Your task to perform on an android device: Go to battery settings Image 0: 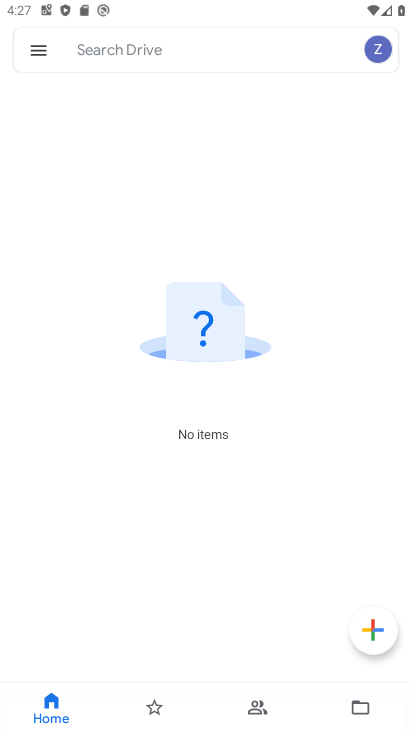
Step 0: drag from (216, 3) to (243, 602)
Your task to perform on an android device: Go to battery settings Image 1: 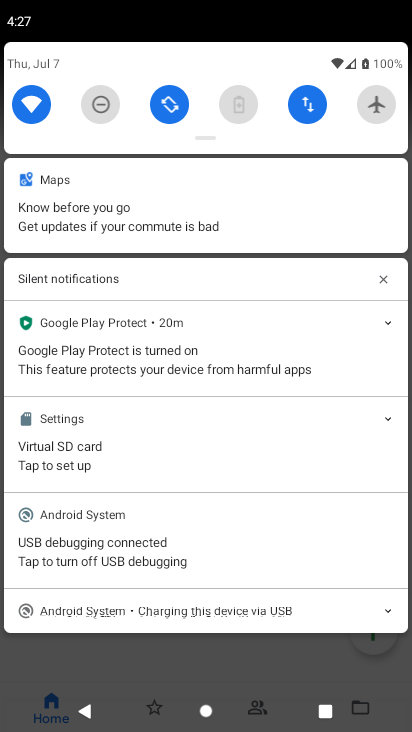
Step 1: click (245, 100)
Your task to perform on an android device: Go to battery settings Image 2: 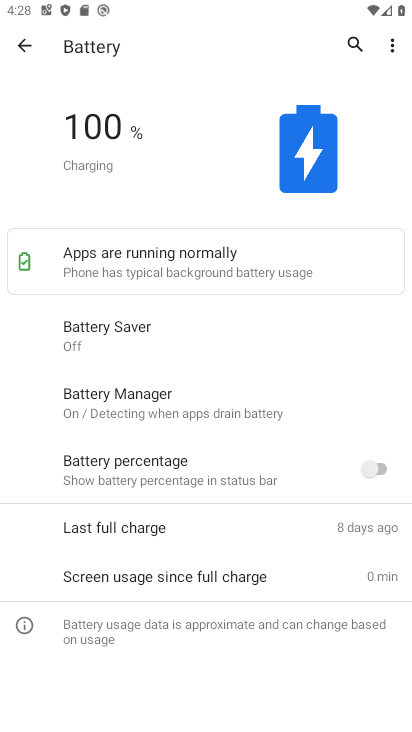
Step 2: task complete